Your task to perform on an android device: Do I have any events tomorrow? Image 0: 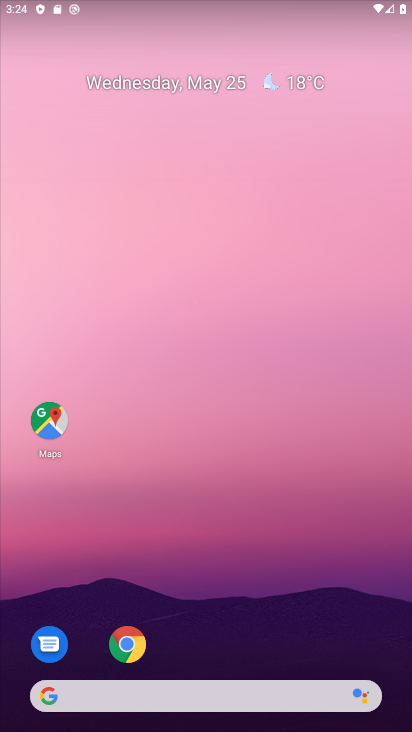
Step 0: drag from (275, 624) to (256, 51)
Your task to perform on an android device: Do I have any events tomorrow? Image 1: 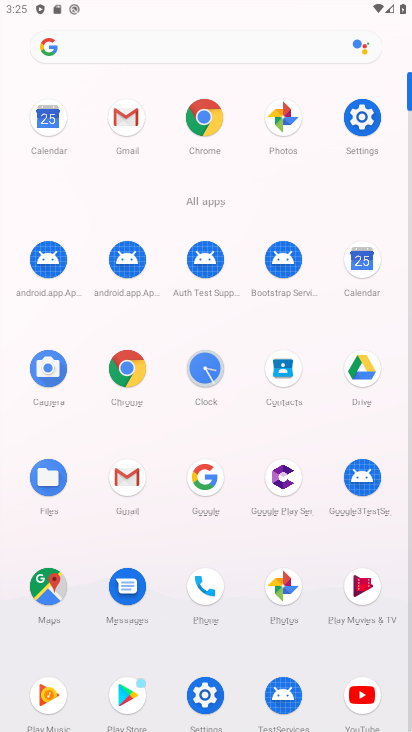
Step 1: click (363, 262)
Your task to perform on an android device: Do I have any events tomorrow? Image 2: 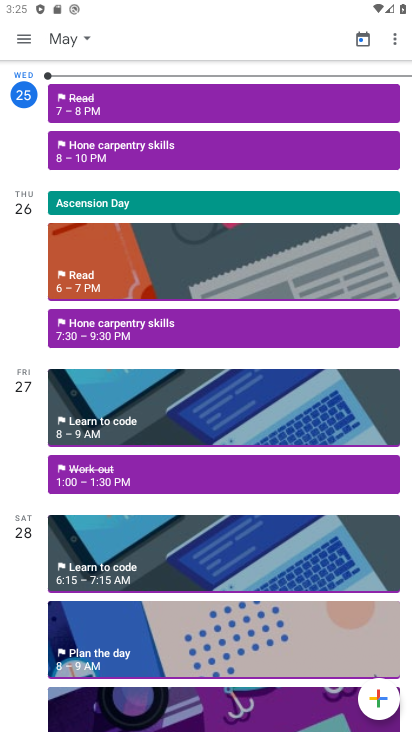
Step 2: click (363, 39)
Your task to perform on an android device: Do I have any events tomorrow? Image 3: 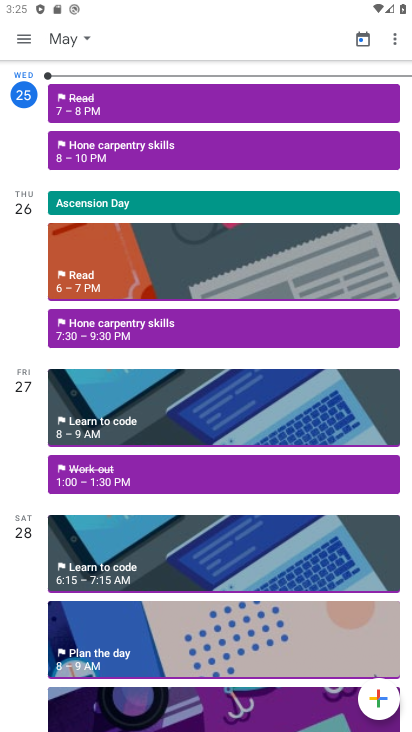
Step 3: click (87, 40)
Your task to perform on an android device: Do I have any events tomorrow? Image 4: 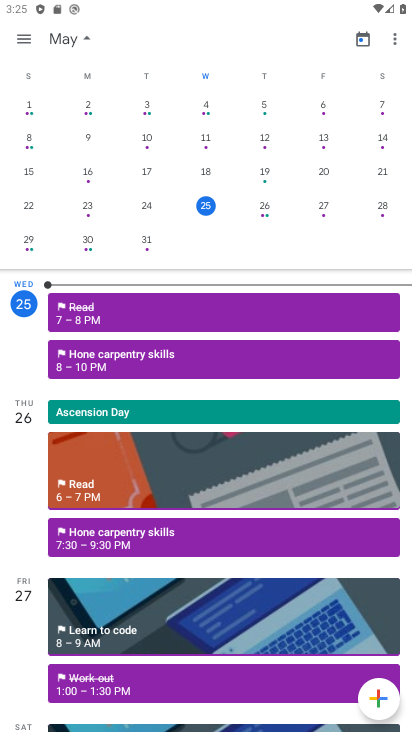
Step 4: click (264, 216)
Your task to perform on an android device: Do I have any events tomorrow? Image 5: 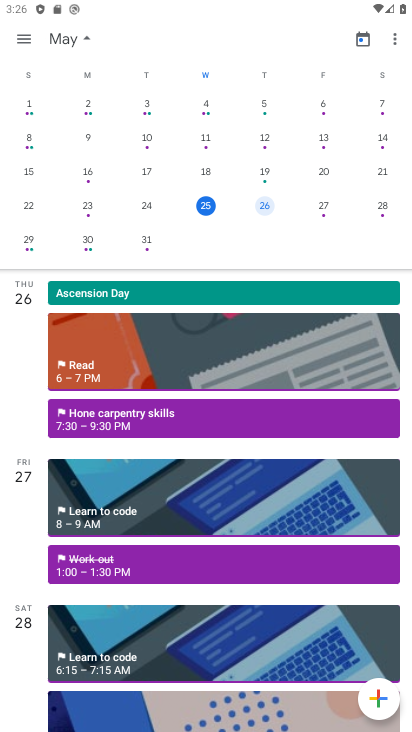
Step 5: click (17, 36)
Your task to perform on an android device: Do I have any events tomorrow? Image 6: 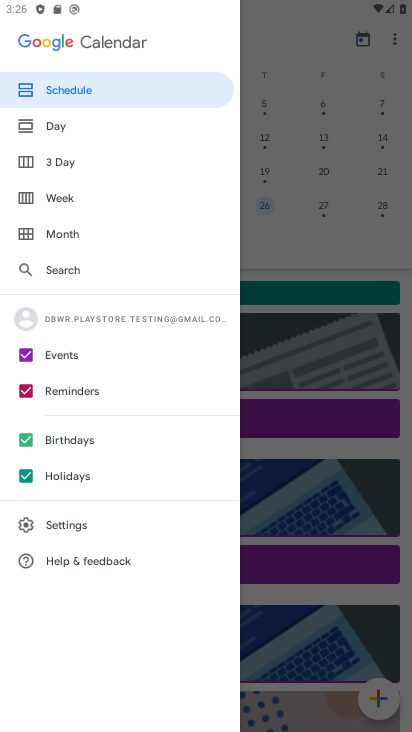
Step 6: click (59, 86)
Your task to perform on an android device: Do I have any events tomorrow? Image 7: 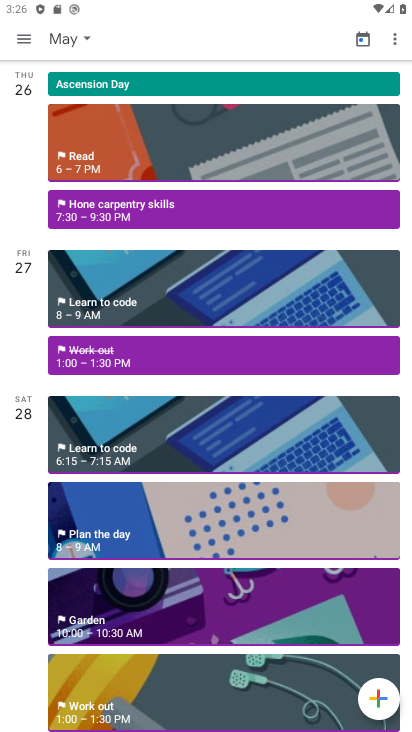
Step 7: click (205, 205)
Your task to perform on an android device: Do I have any events tomorrow? Image 8: 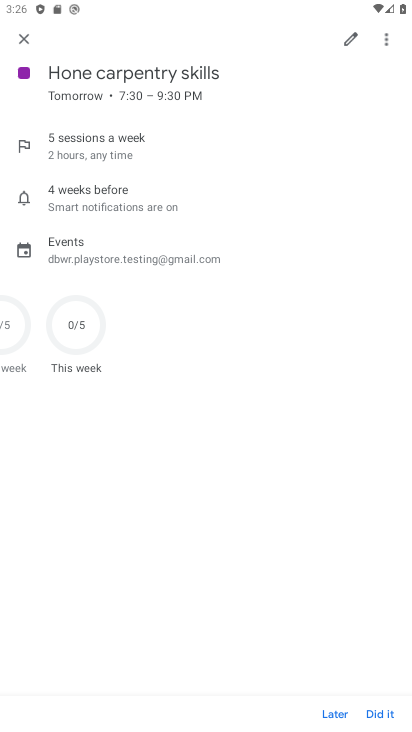
Step 8: task complete